Your task to perform on an android device: change the clock style Image 0: 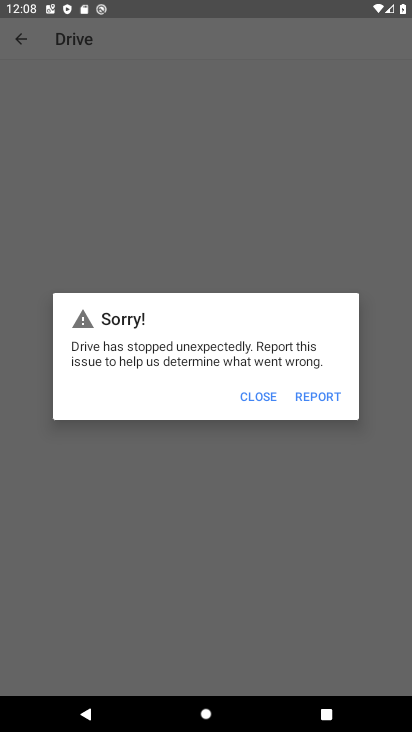
Step 0: press home button
Your task to perform on an android device: change the clock style Image 1: 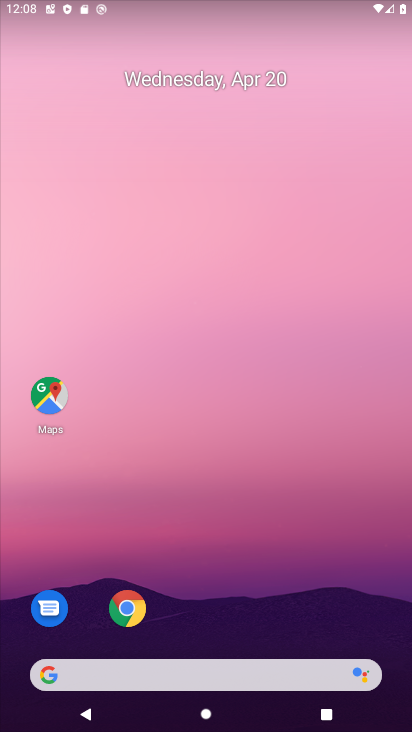
Step 1: drag from (250, 644) to (203, 30)
Your task to perform on an android device: change the clock style Image 2: 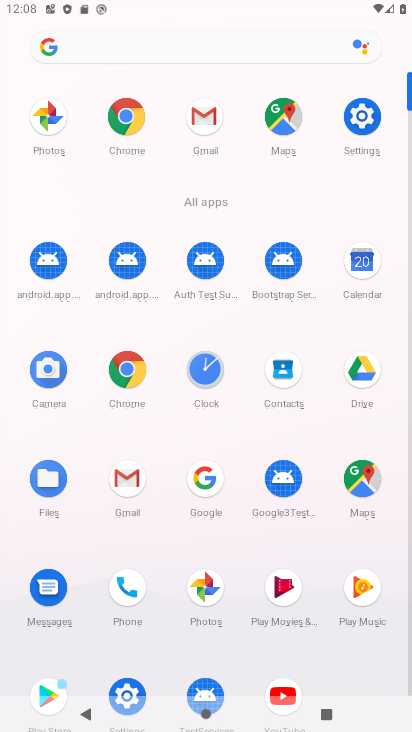
Step 2: click (204, 379)
Your task to perform on an android device: change the clock style Image 3: 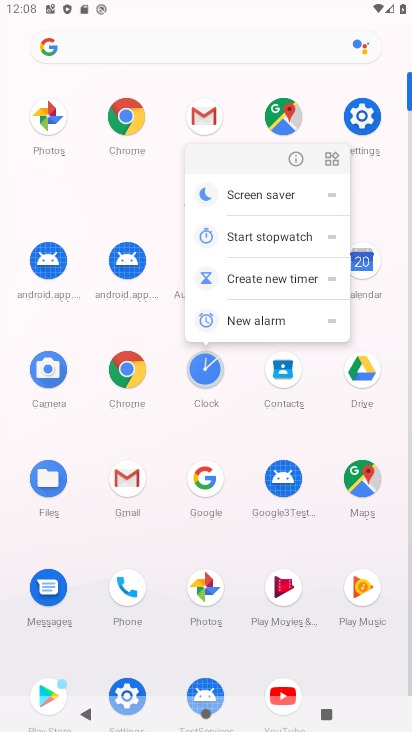
Step 3: click (205, 378)
Your task to perform on an android device: change the clock style Image 4: 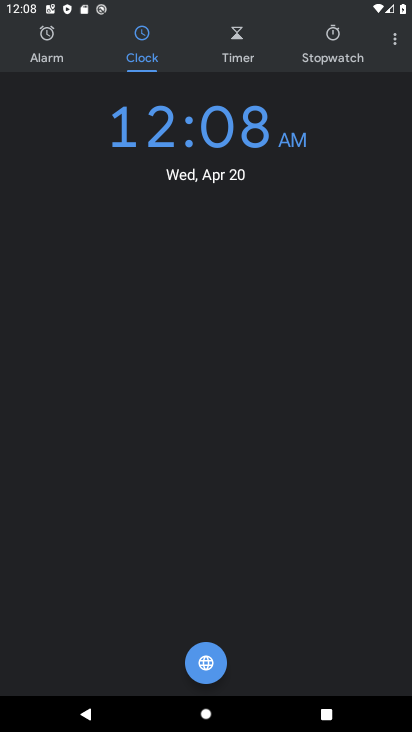
Step 4: click (397, 45)
Your task to perform on an android device: change the clock style Image 5: 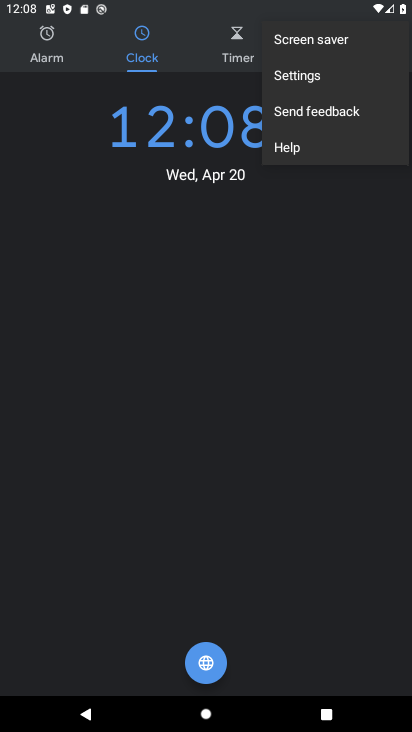
Step 5: click (293, 71)
Your task to perform on an android device: change the clock style Image 6: 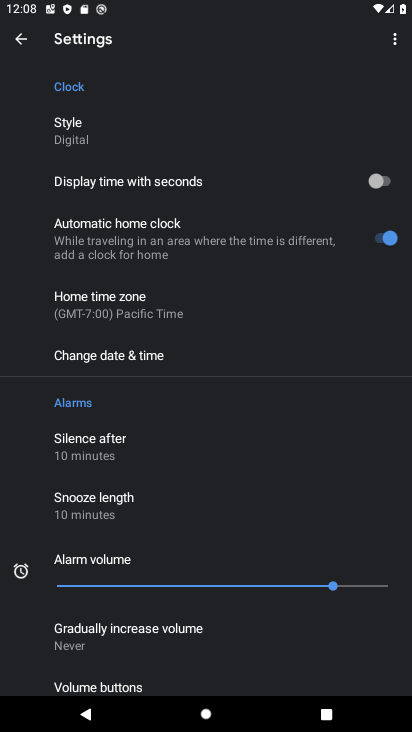
Step 6: click (74, 132)
Your task to perform on an android device: change the clock style Image 7: 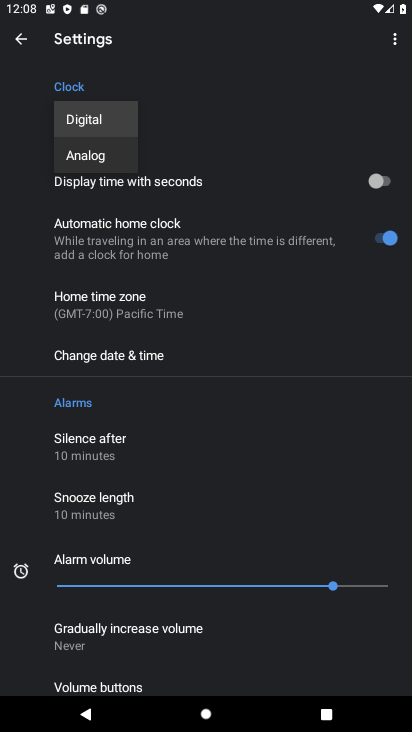
Step 7: click (96, 151)
Your task to perform on an android device: change the clock style Image 8: 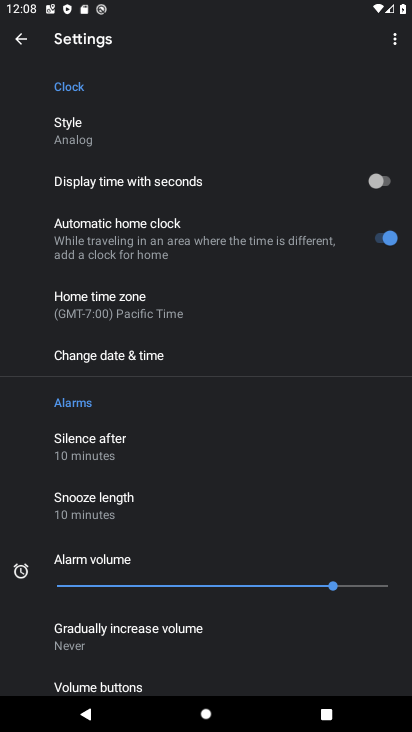
Step 8: task complete